Your task to perform on an android device: turn on the 24-hour format for clock Image 0: 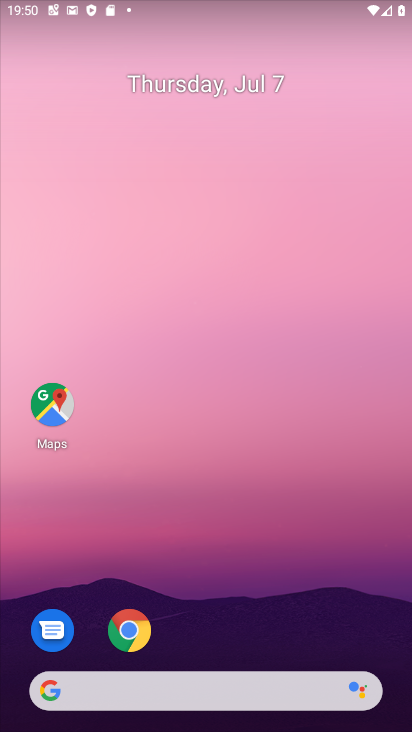
Step 0: drag from (339, 608) to (224, 201)
Your task to perform on an android device: turn on the 24-hour format for clock Image 1: 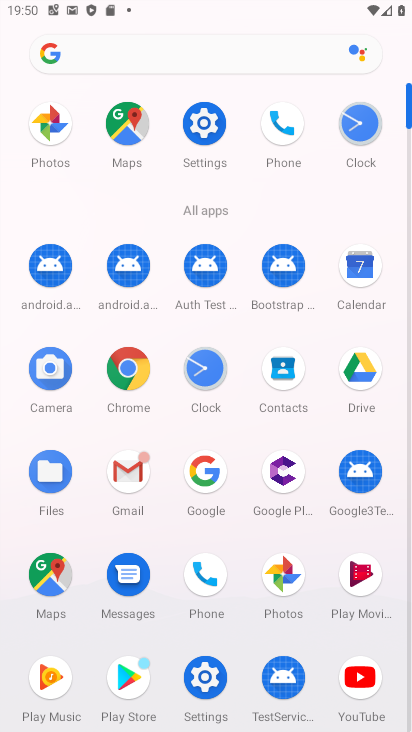
Step 1: click (353, 128)
Your task to perform on an android device: turn on the 24-hour format for clock Image 2: 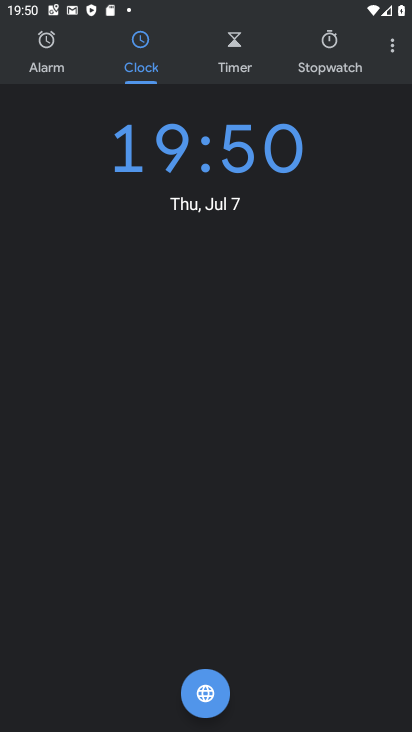
Step 2: click (393, 42)
Your task to perform on an android device: turn on the 24-hour format for clock Image 3: 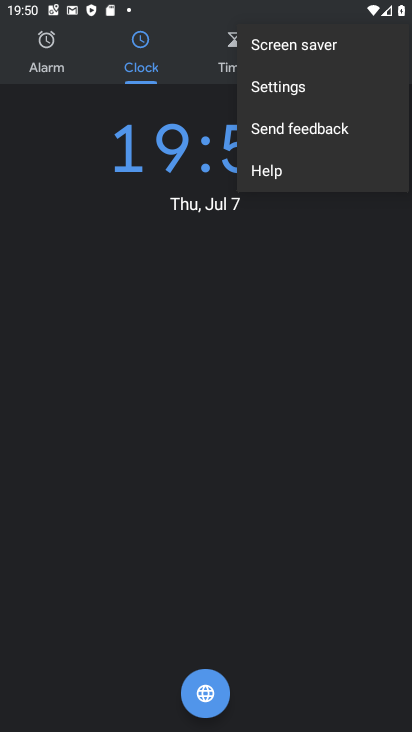
Step 3: click (338, 93)
Your task to perform on an android device: turn on the 24-hour format for clock Image 4: 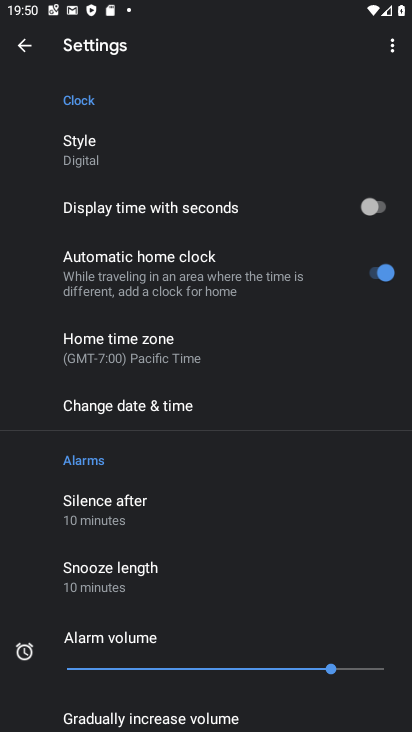
Step 4: click (202, 410)
Your task to perform on an android device: turn on the 24-hour format for clock Image 5: 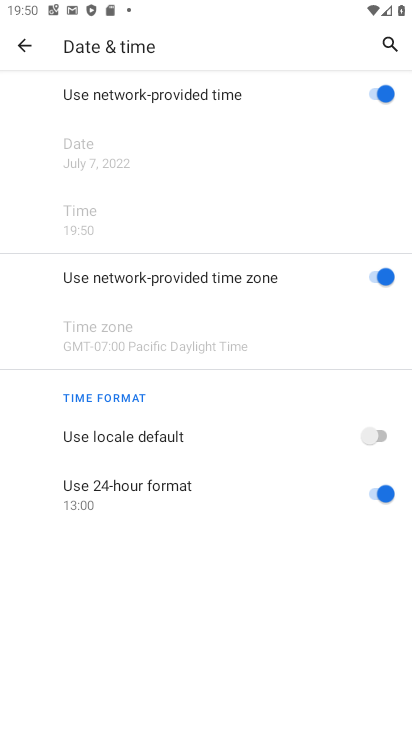
Step 5: task complete